Your task to perform on an android device: Open Youtube and go to the subscriptions tab Image 0: 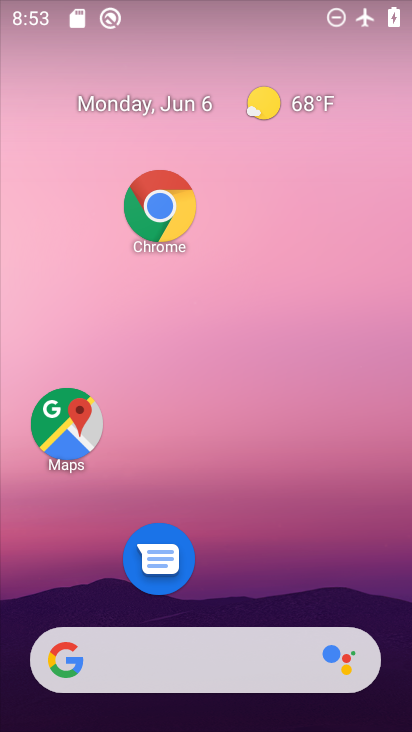
Step 0: drag from (277, 695) to (247, 107)
Your task to perform on an android device: Open Youtube and go to the subscriptions tab Image 1: 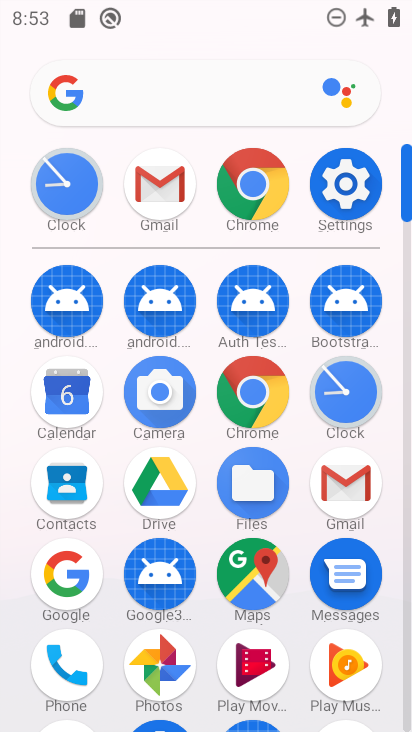
Step 1: drag from (301, 600) to (311, 213)
Your task to perform on an android device: Open Youtube and go to the subscriptions tab Image 2: 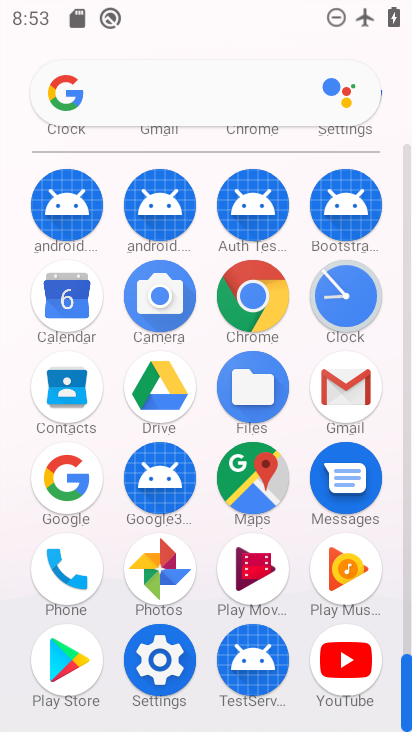
Step 2: drag from (324, 612) to (319, 224)
Your task to perform on an android device: Open Youtube and go to the subscriptions tab Image 3: 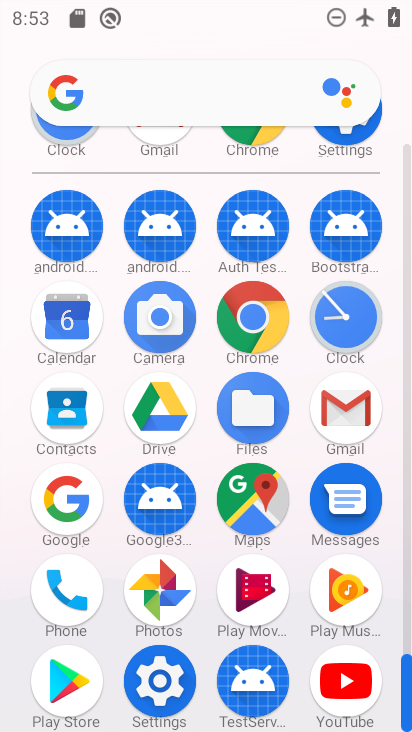
Step 3: click (344, 676)
Your task to perform on an android device: Open Youtube and go to the subscriptions tab Image 4: 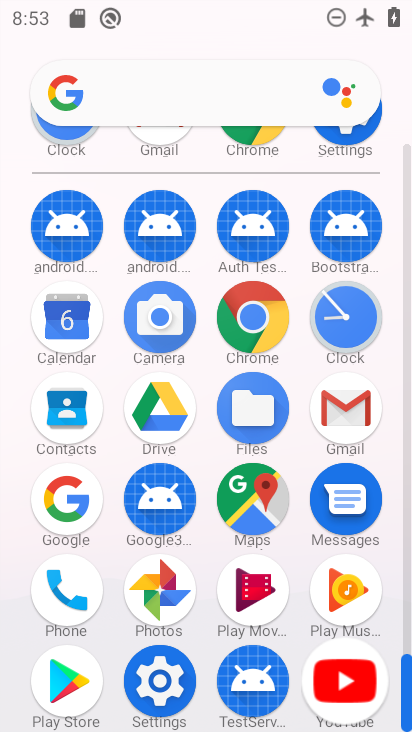
Step 4: click (344, 677)
Your task to perform on an android device: Open Youtube and go to the subscriptions tab Image 5: 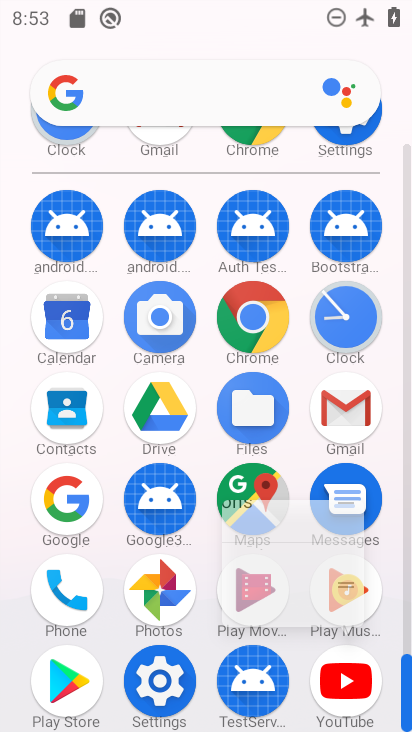
Step 5: click (348, 678)
Your task to perform on an android device: Open Youtube and go to the subscriptions tab Image 6: 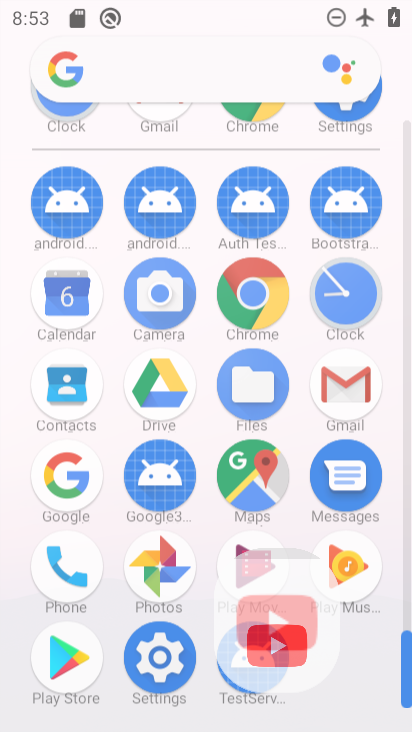
Step 6: click (350, 679)
Your task to perform on an android device: Open Youtube and go to the subscriptions tab Image 7: 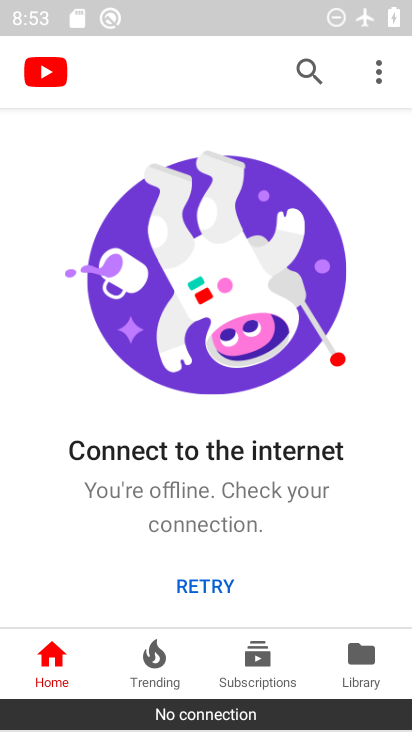
Step 7: click (264, 658)
Your task to perform on an android device: Open Youtube and go to the subscriptions tab Image 8: 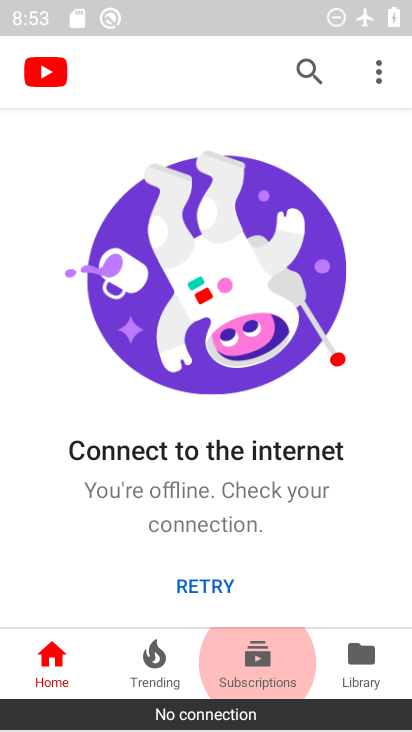
Step 8: click (264, 658)
Your task to perform on an android device: Open Youtube and go to the subscriptions tab Image 9: 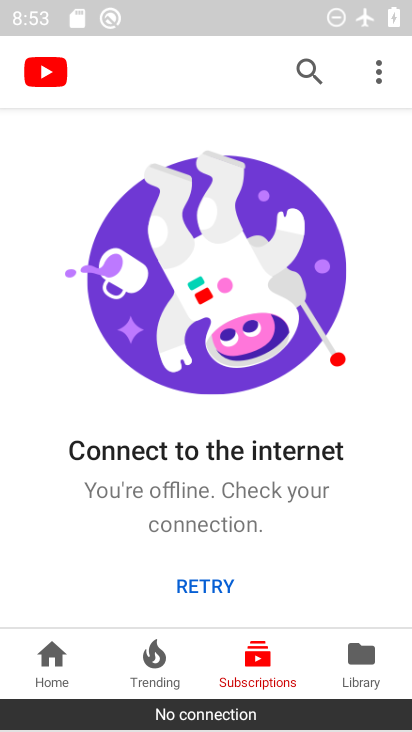
Step 9: task complete